Your task to perform on an android device: star an email in the gmail app Image 0: 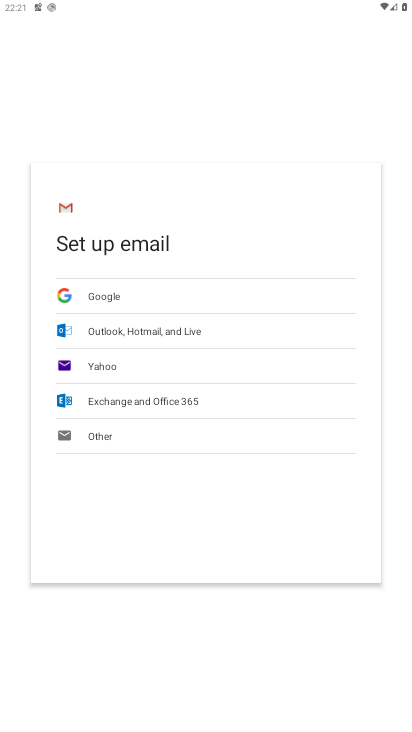
Step 0: press home button
Your task to perform on an android device: star an email in the gmail app Image 1: 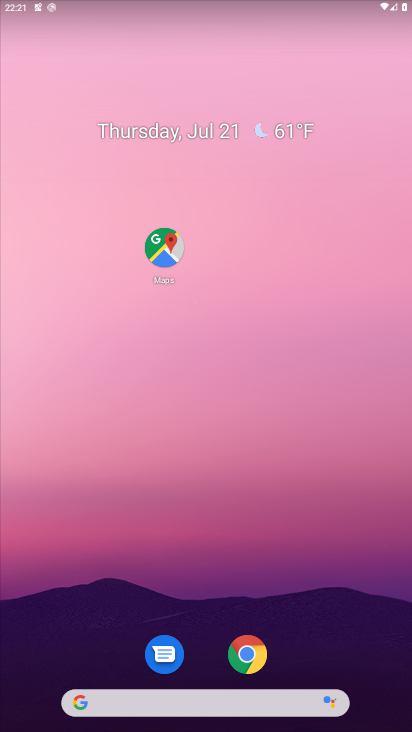
Step 1: drag from (215, 347) to (277, 67)
Your task to perform on an android device: star an email in the gmail app Image 2: 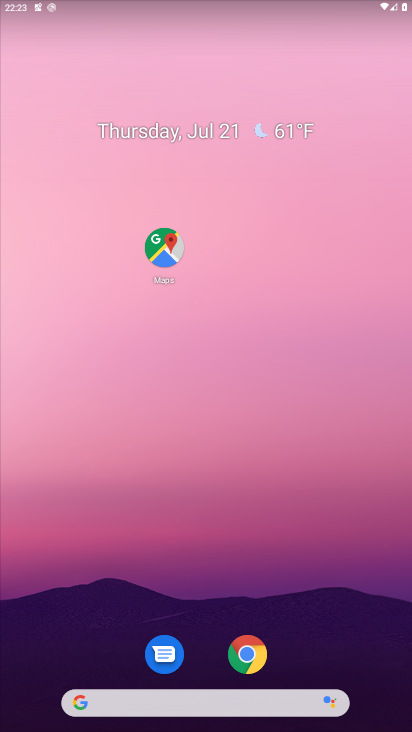
Step 2: drag from (317, 259) to (324, 117)
Your task to perform on an android device: star an email in the gmail app Image 3: 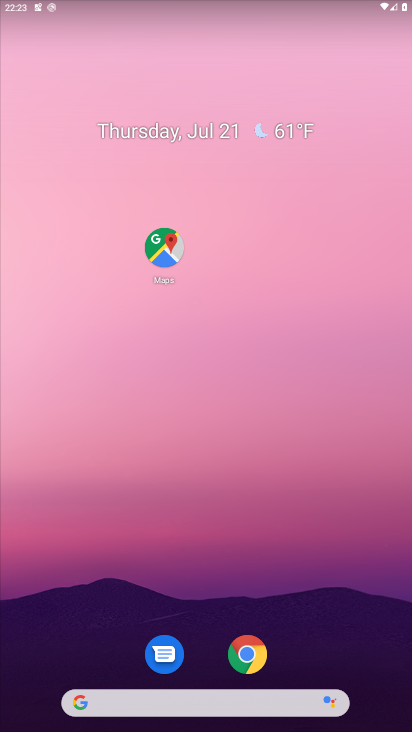
Step 3: drag from (27, 662) to (230, 56)
Your task to perform on an android device: star an email in the gmail app Image 4: 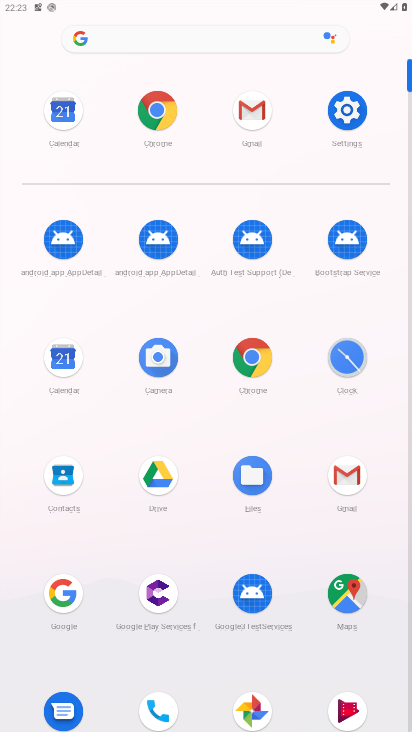
Step 4: click (339, 483)
Your task to perform on an android device: star an email in the gmail app Image 5: 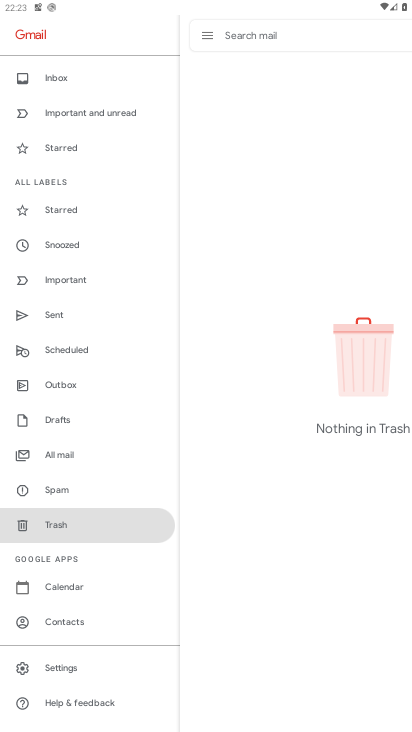
Step 5: click (72, 152)
Your task to perform on an android device: star an email in the gmail app Image 6: 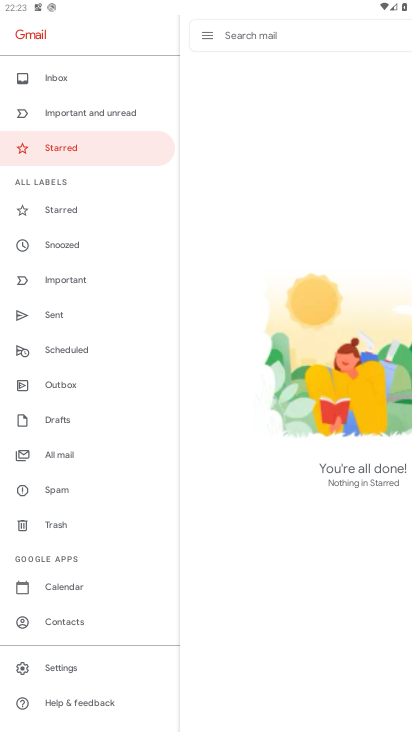
Step 6: task complete